Your task to perform on an android device: Check the weather Image 0: 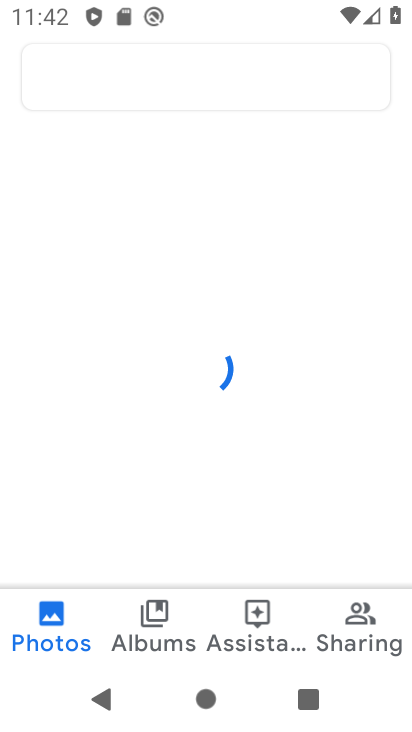
Step 0: press home button
Your task to perform on an android device: Check the weather Image 1: 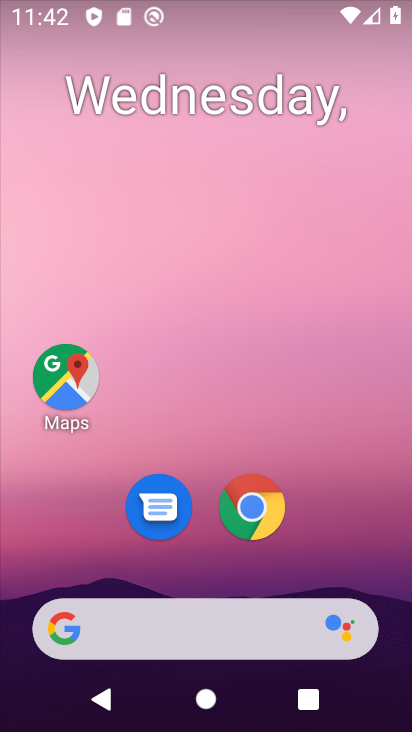
Step 1: click (185, 646)
Your task to perform on an android device: Check the weather Image 2: 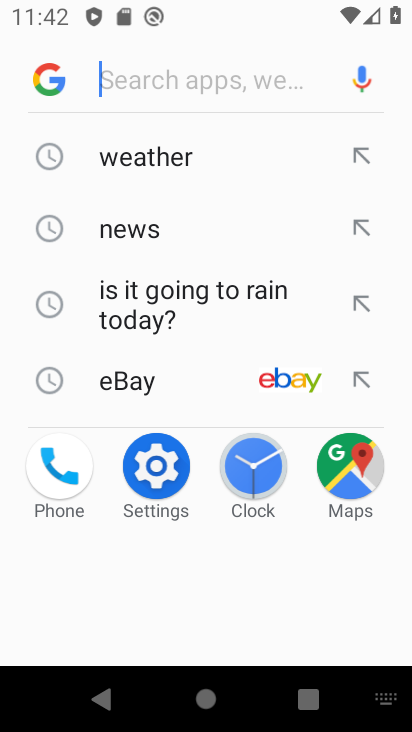
Step 2: click (125, 164)
Your task to perform on an android device: Check the weather Image 3: 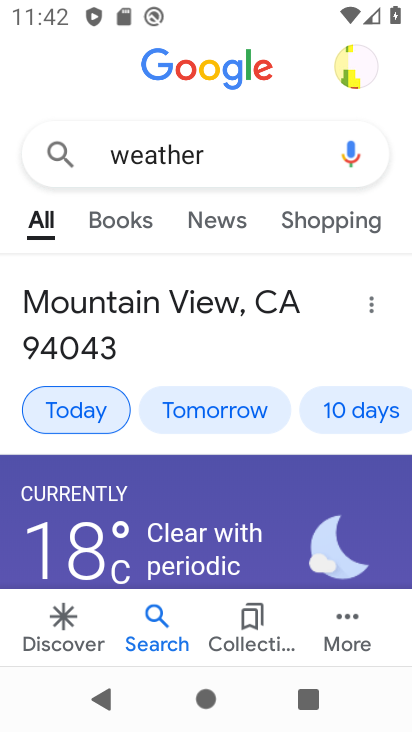
Step 3: task complete